Your task to perform on an android device: set the stopwatch Image 0: 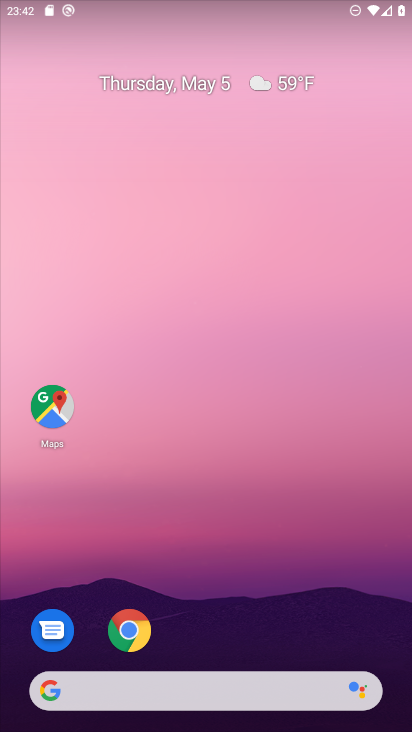
Step 0: drag from (250, 601) to (136, 37)
Your task to perform on an android device: set the stopwatch Image 1: 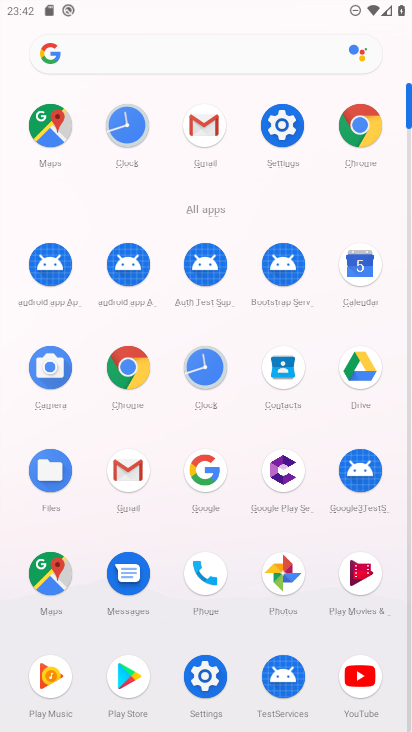
Step 1: click (210, 358)
Your task to perform on an android device: set the stopwatch Image 2: 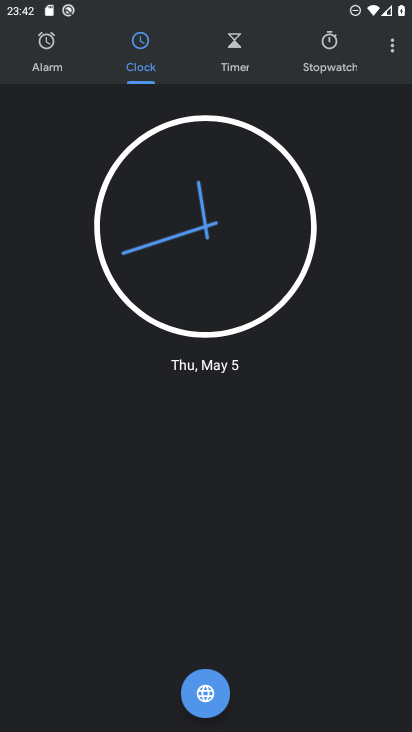
Step 2: click (335, 49)
Your task to perform on an android device: set the stopwatch Image 3: 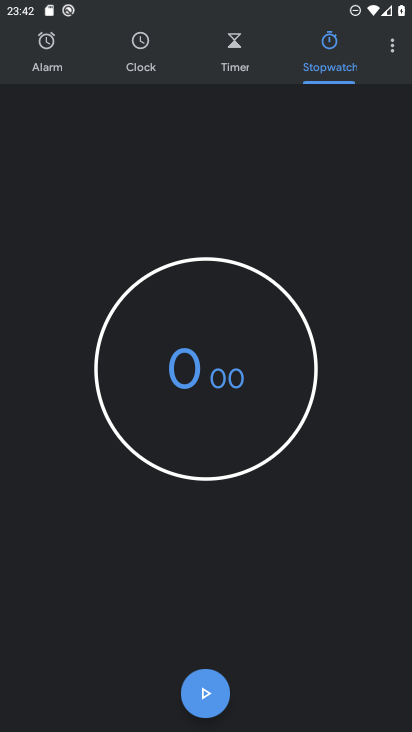
Step 3: click (212, 695)
Your task to perform on an android device: set the stopwatch Image 4: 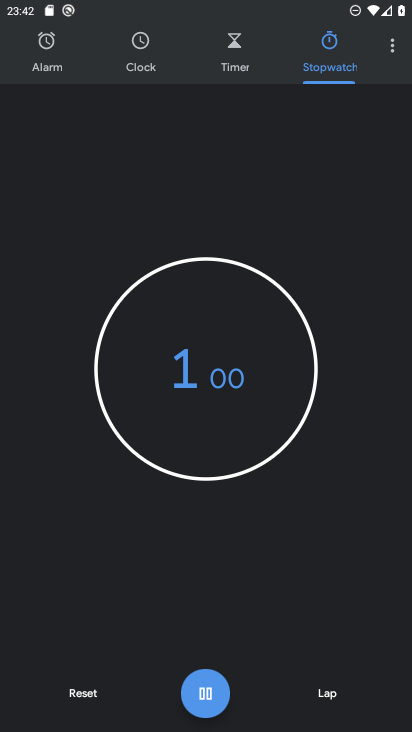
Step 4: click (212, 695)
Your task to perform on an android device: set the stopwatch Image 5: 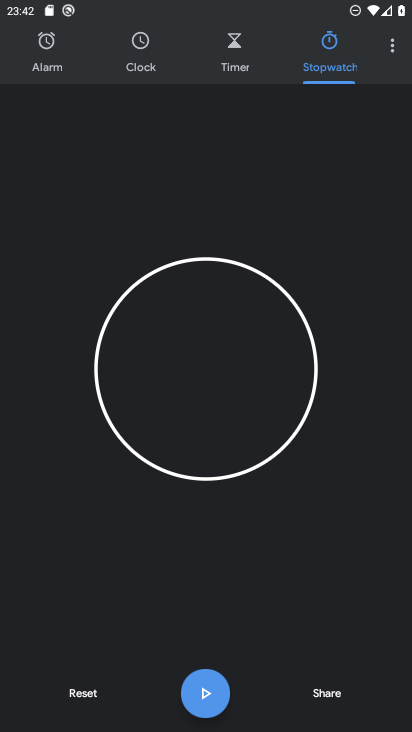
Step 5: task complete